Your task to perform on an android device: install app "Google Maps" Image 0: 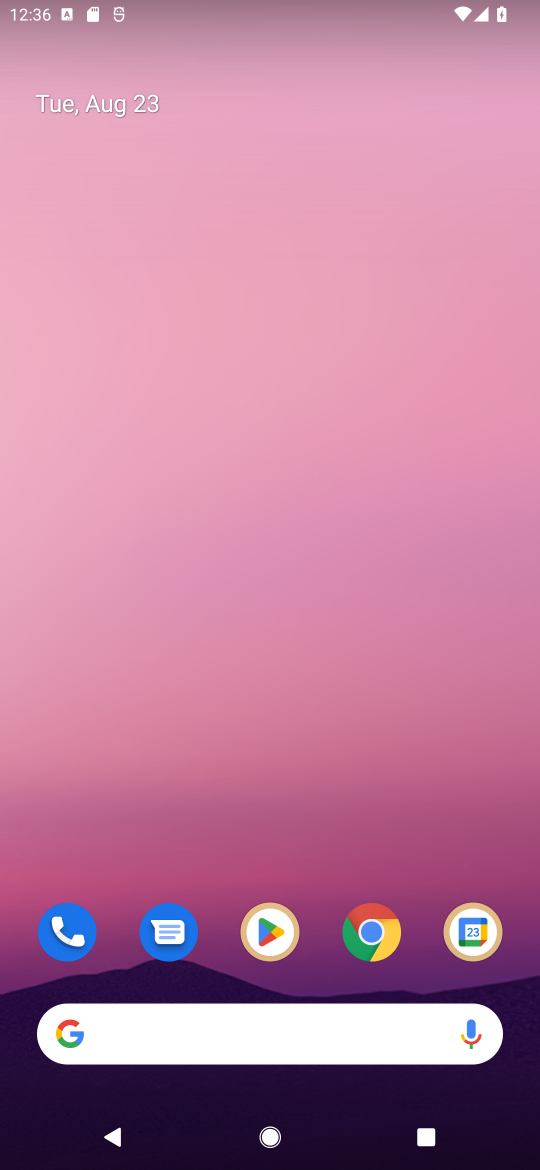
Step 0: click (292, 929)
Your task to perform on an android device: install app "Google Maps" Image 1: 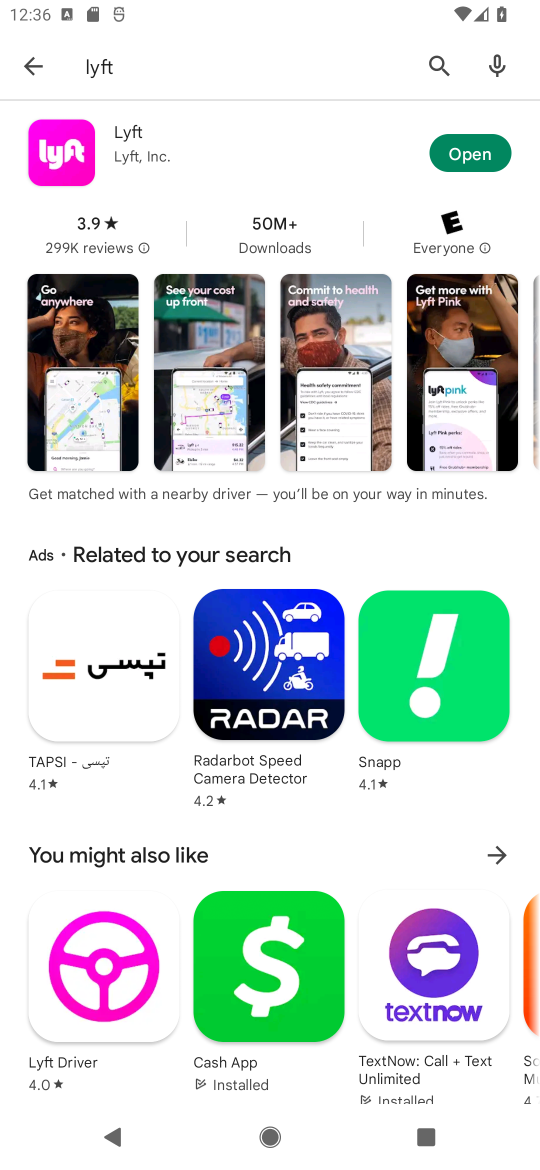
Step 1: click (425, 57)
Your task to perform on an android device: install app "Google Maps" Image 2: 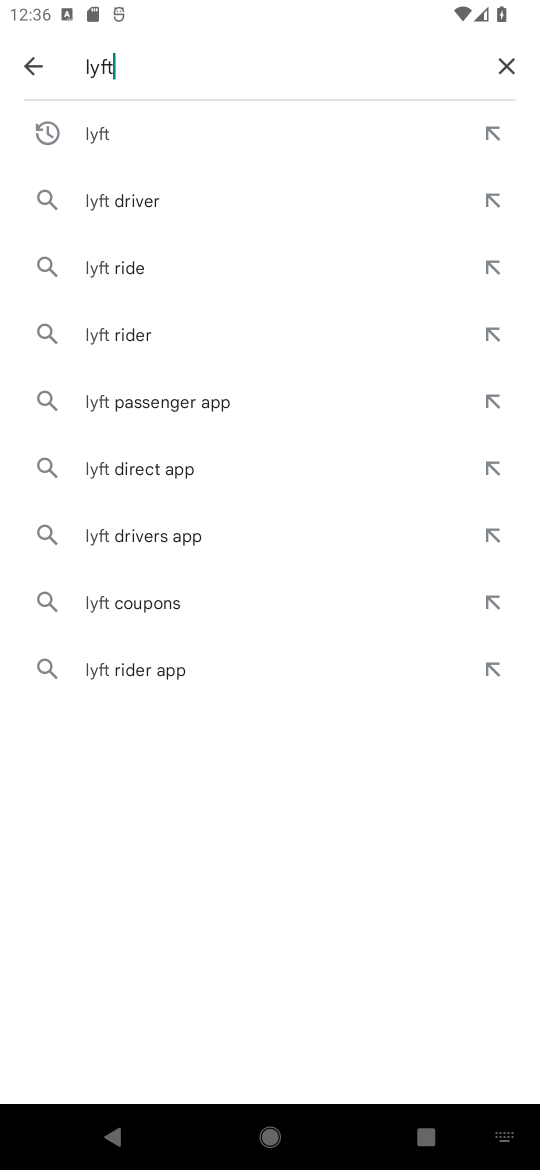
Step 2: click (497, 62)
Your task to perform on an android device: install app "Google Maps" Image 3: 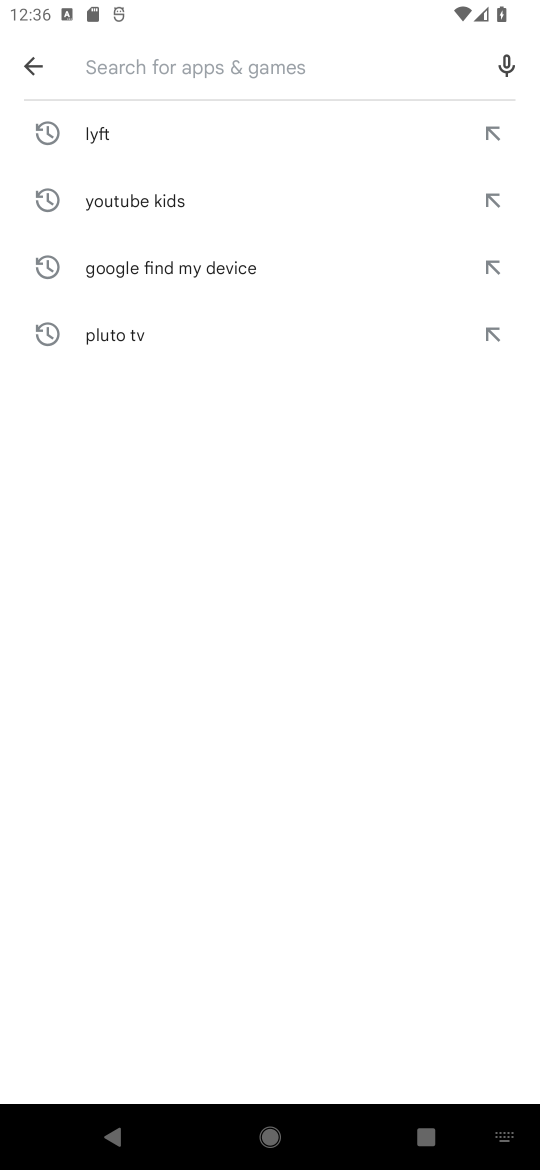
Step 3: click (118, 48)
Your task to perform on an android device: install app "Google Maps" Image 4: 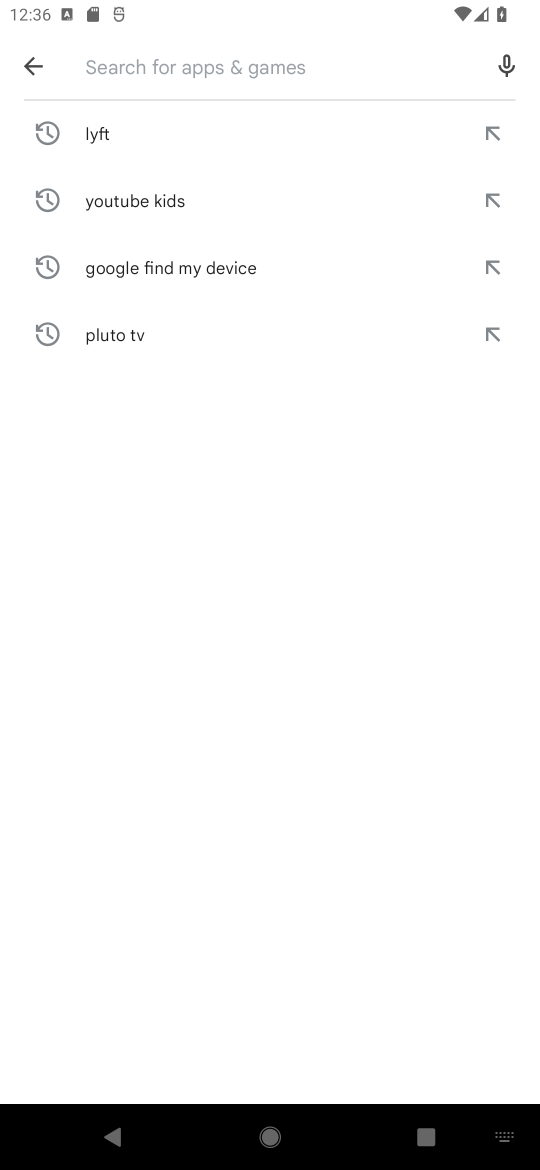
Step 4: type "Google Maps"
Your task to perform on an android device: install app "Google Maps" Image 5: 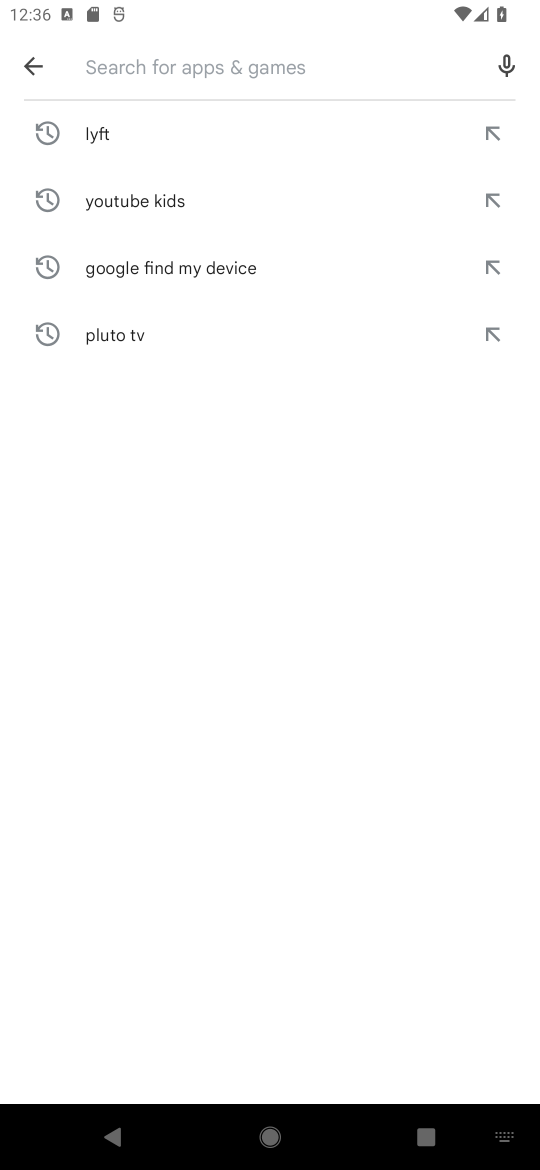
Step 5: click (346, 719)
Your task to perform on an android device: install app "Google Maps" Image 6: 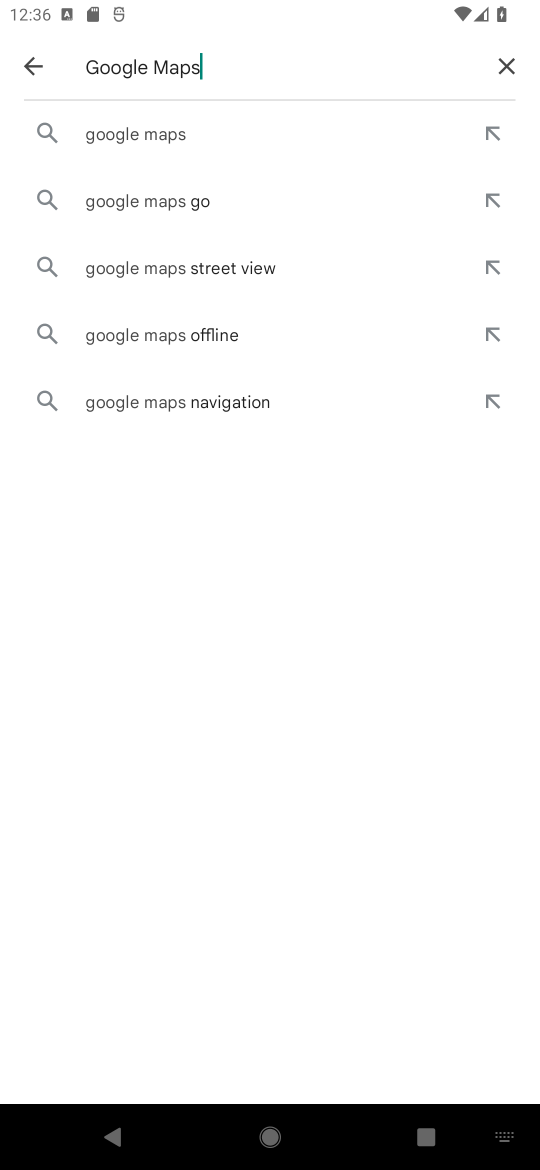
Step 6: click (165, 129)
Your task to perform on an android device: install app "Google Maps" Image 7: 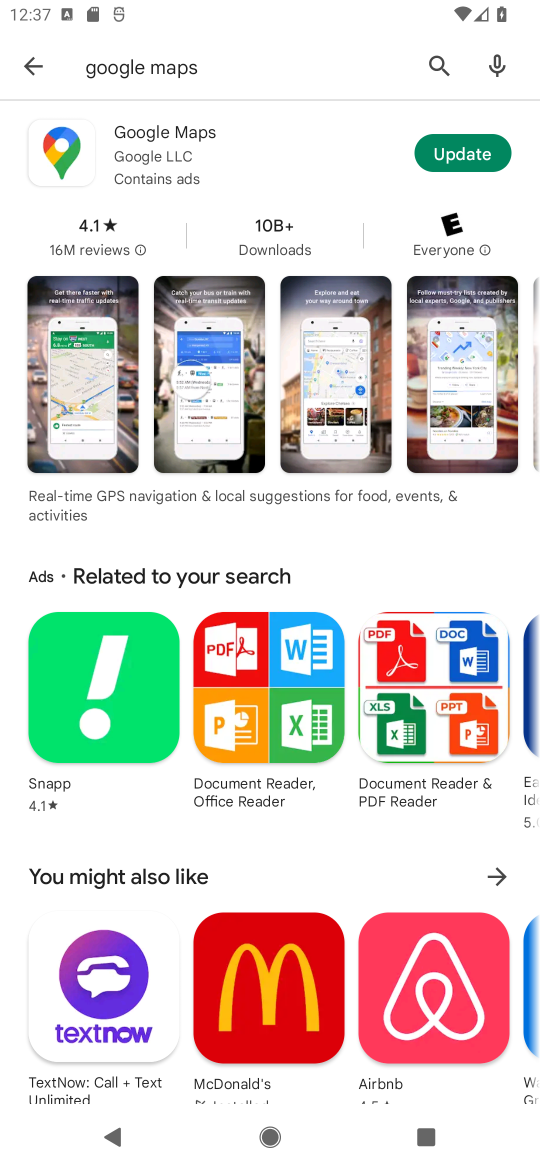
Step 7: task complete